Your task to perform on an android device: toggle priority inbox in the gmail app Image 0: 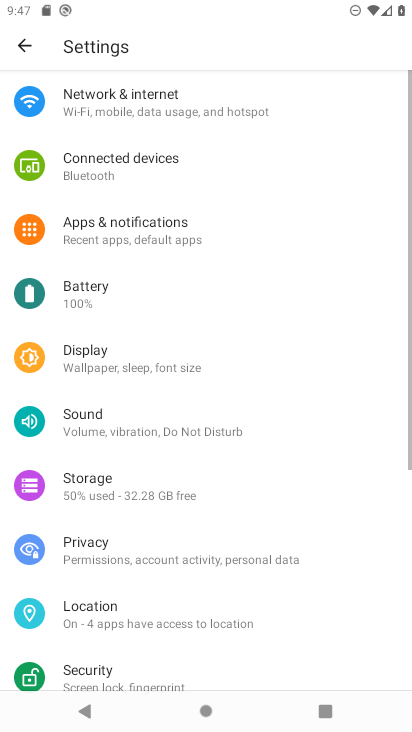
Step 0: press home button
Your task to perform on an android device: toggle priority inbox in the gmail app Image 1: 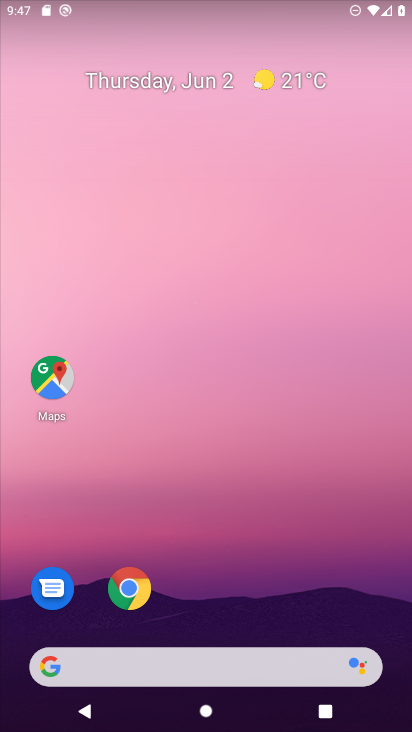
Step 1: drag from (217, 589) to (233, 316)
Your task to perform on an android device: toggle priority inbox in the gmail app Image 2: 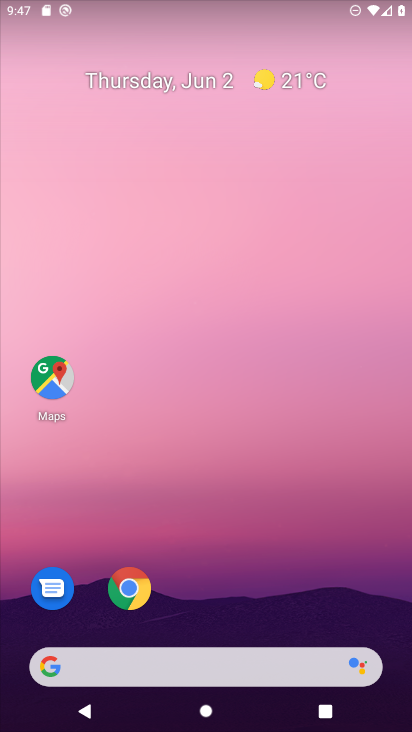
Step 2: drag from (168, 645) to (218, 358)
Your task to perform on an android device: toggle priority inbox in the gmail app Image 3: 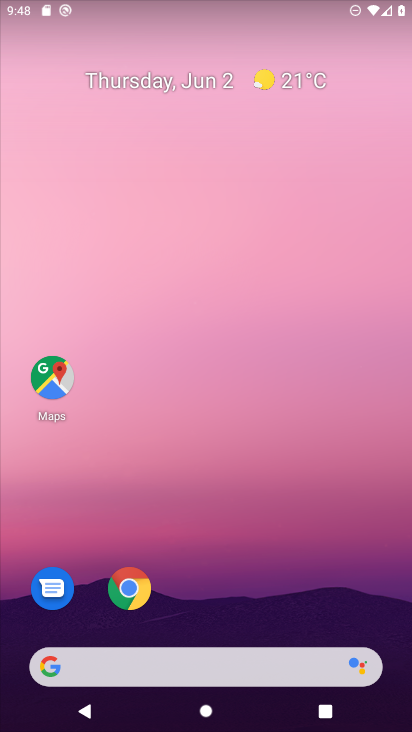
Step 3: drag from (320, 130) to (328, 77)
Your task to perform on an android device: toggle priority inbox in the gmail app Image 4: 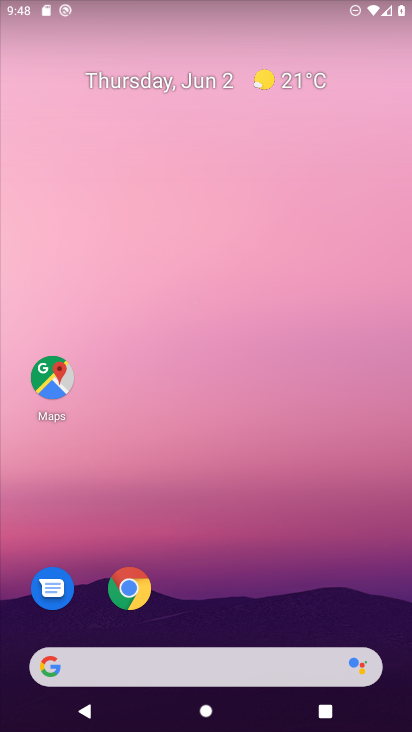
Step 4: drag from (216, 627) to (302, 103)
Your task to perform on an android device: toggle priority inbox in the gmail app Image 5: 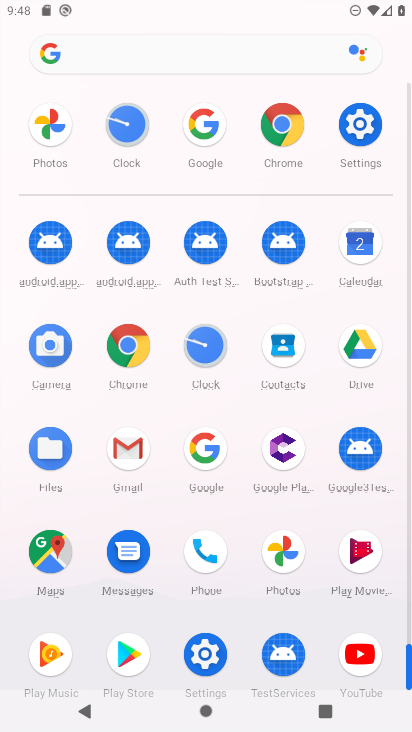
Step 5: click (137, 454)
Your task to perform on an android device: toggle priority inbox in the gmail app Image 6: 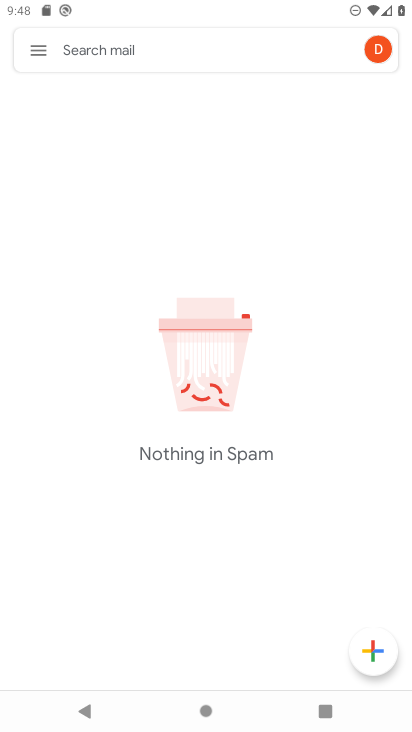
Step 6: click (35, 52)
Your task to perform on an android device: toggle priority inbox in the gmail app Image 7: 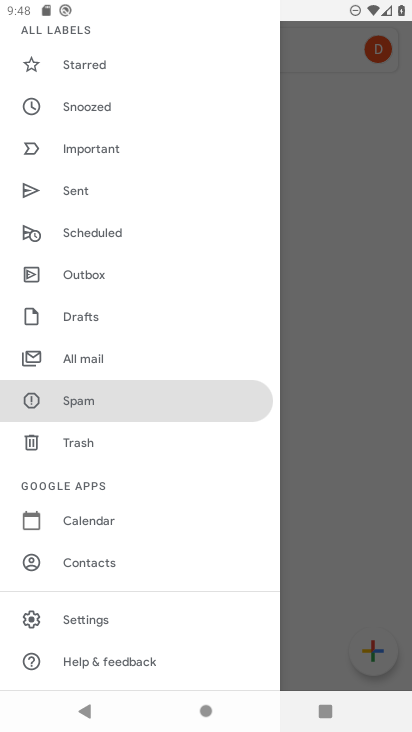
Step 7: click (86, 623)
Your task to perform on an android device: toggle priority inbox in the gmail app Image 8: 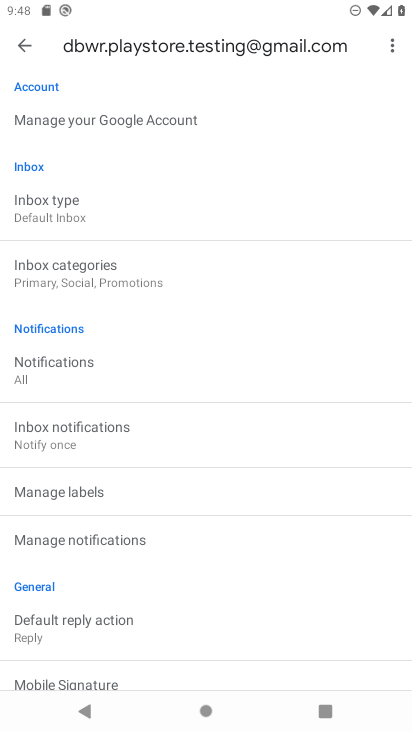
Step 8: click (95, 219)
Your task to perform on an android device: toggle priority inbox in the gmail app Image 9: 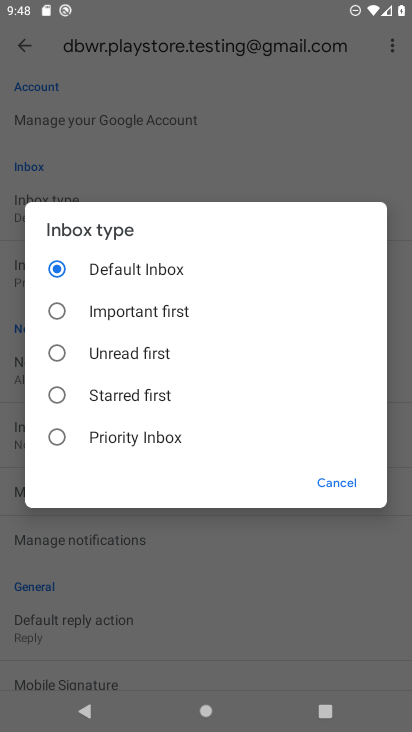
Step 9: click (134, 441)
Your task to perform on an android device: toggle priority inbox in the gmail app Image 10: 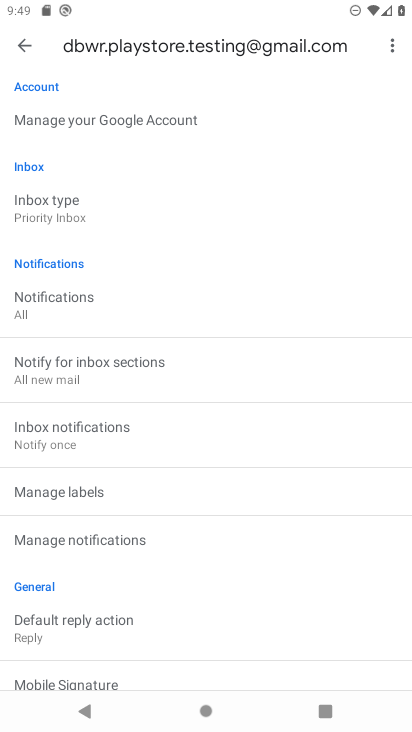
Step 10: task complete